Your task to perform on an android device: manage bookmarks in the chrome app Image 0: 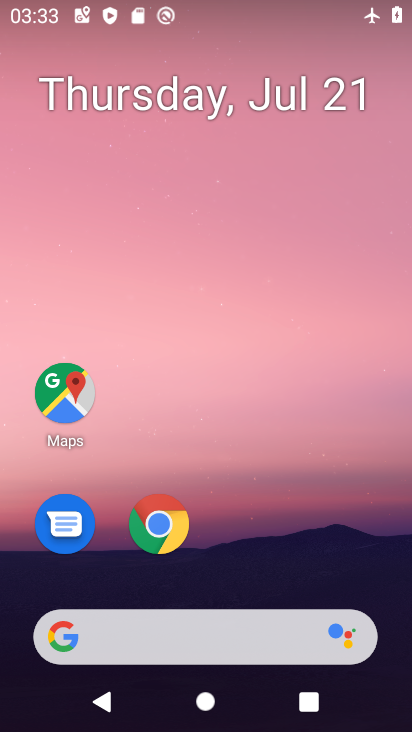
Step 0: click (158, 529)
Your task to perform on an android device: manage bookmarks in the chrome app Image 1: 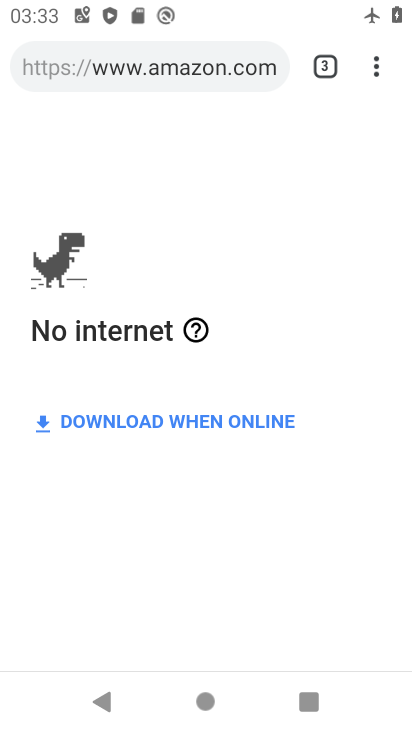
Step 1: click (379, 70)
Your task to perform on an android device: manage bookmarks in the chrome app Image 2: 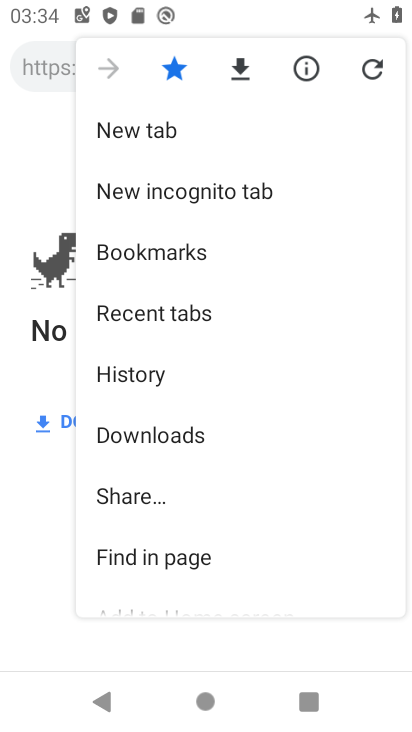
Step 2: click (197, 254)
Your task to perform on an android device: manage bookmarks in the chrome app Image 3: 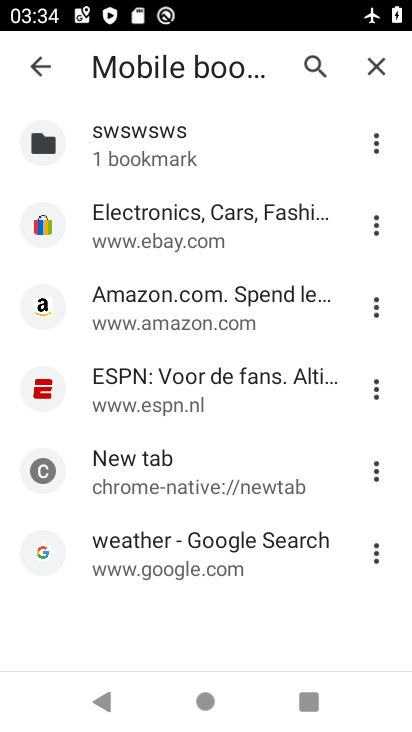
Step 3: click (373, 219)
Your task to perform on an android device: manage bookmarks in the chrome app Image 4: 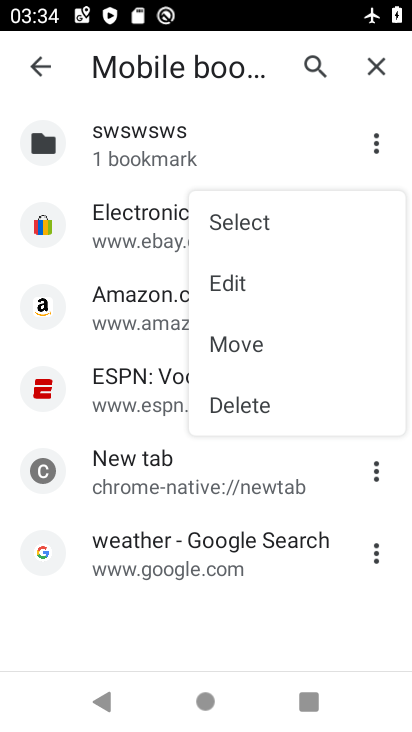
Step 4: click (261, 280)
Your task to perform on an android device: manage bookmarks in the chrome app Image 5: 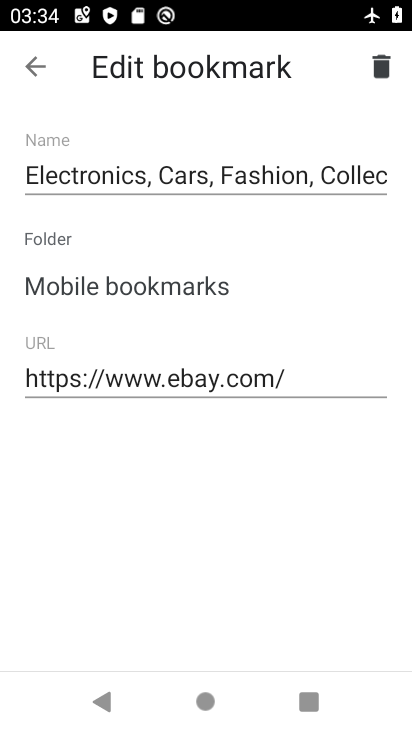
Step 5: task complete